Your task to perform on an android device: refresh tabs in the chrome app Image 0: 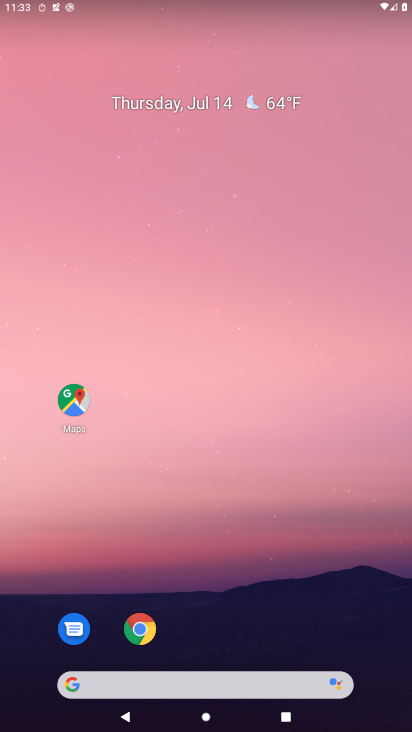
Step 0: click (146, 636)
Your task to perform on an android device: refresh tabs in the chrome app Image 1: 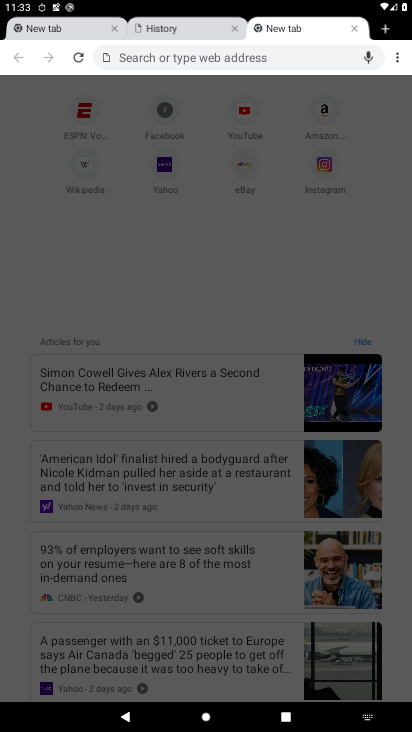
Step 1: click (70, 56)
Your task to perform on an android device: refresh tabs in the chrome app Image 2: 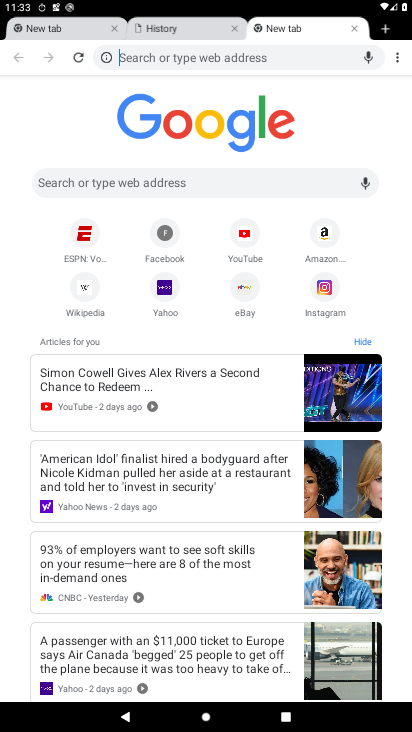
Step 2: task complete